Your task to perform on an android device: How much does a 2 bedroom apartment rent for in Philadelphia? Image 0: 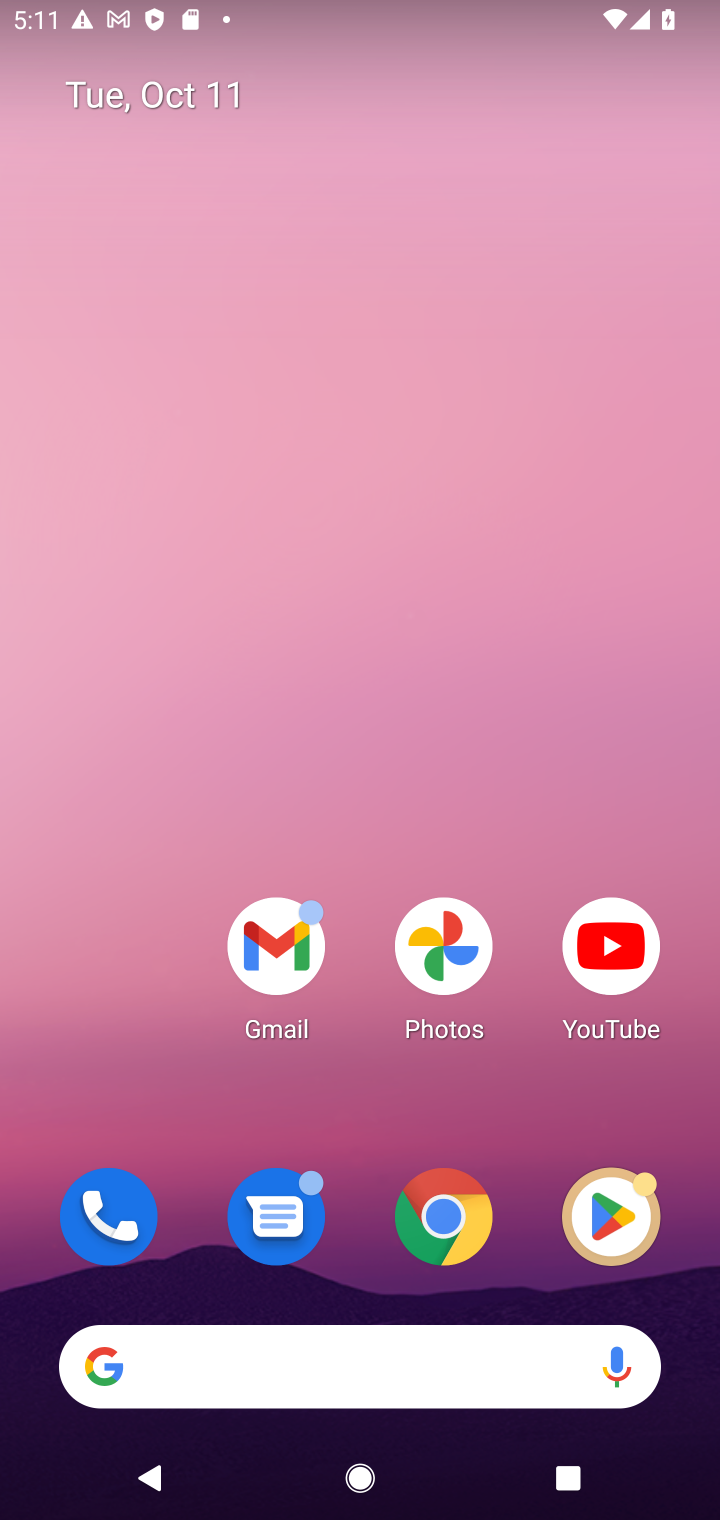
Step 0: click (439, 1222)
Your task to perform on an android device: How much does a 2 bedroom apartment rent for in Philadelphia? Image 1: 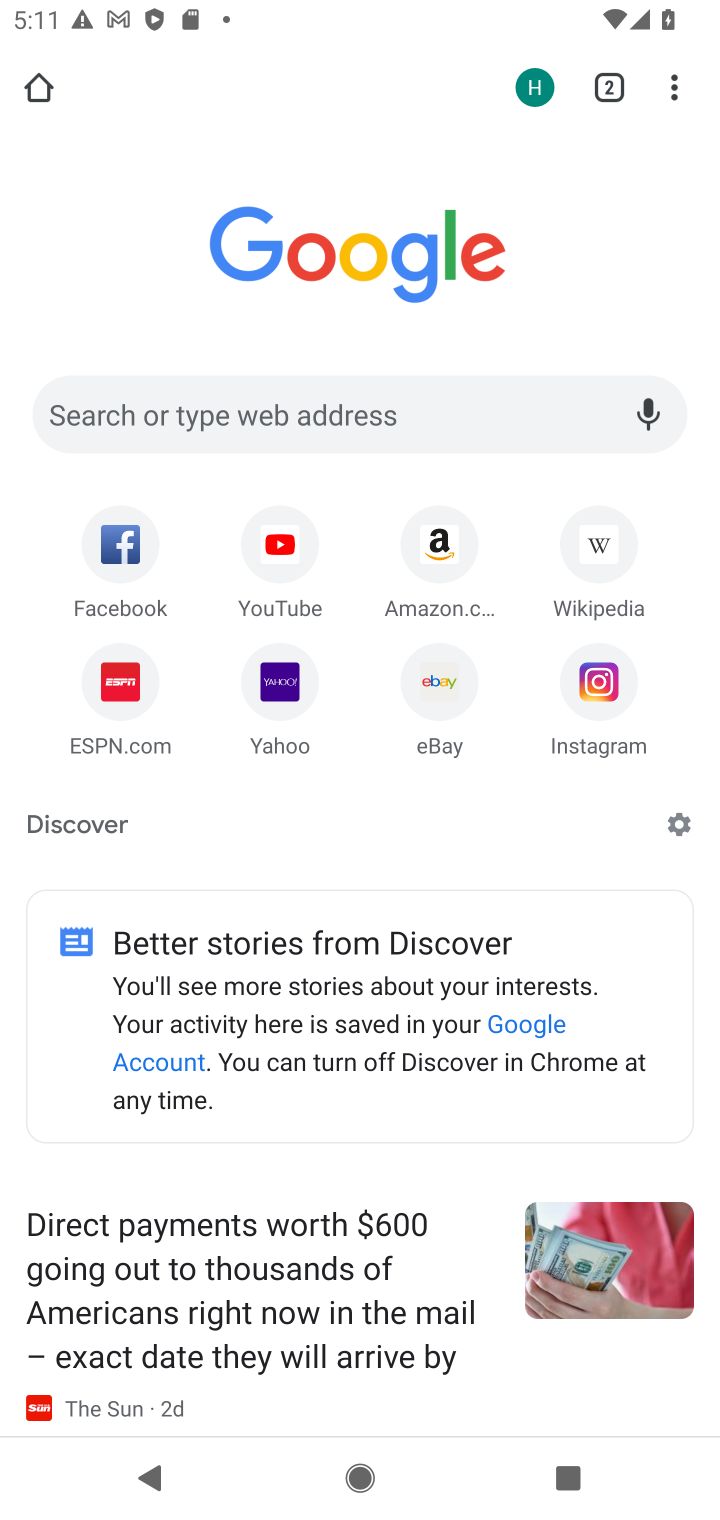
Step 1: click (303, 410)
Your task to perform on an android device: How much does a 2 bedroom apartment rent for in Philadelphia? Image 2: 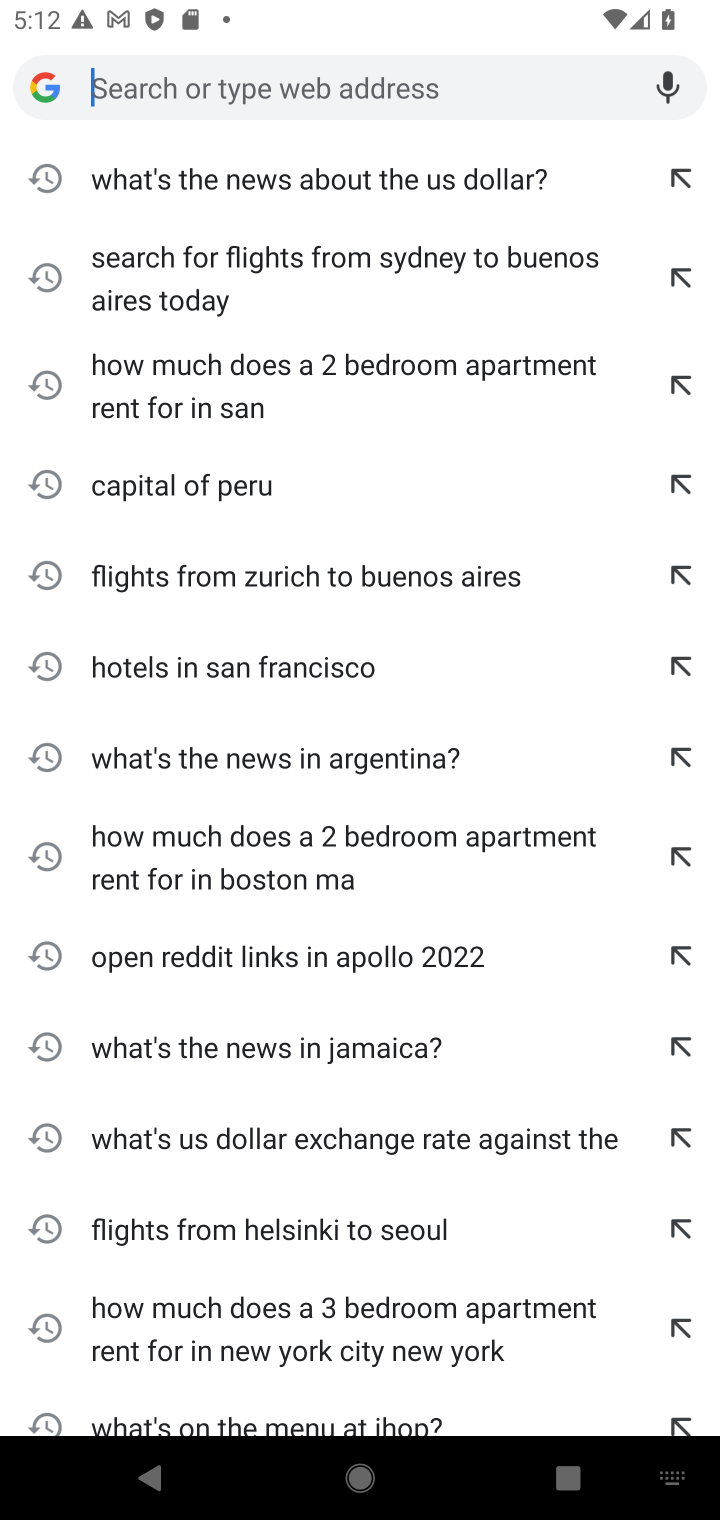
Step 2: type "How much does a 2 bedroom apartment rent for in Philadelphia?"
Your task to perform on an android device: How much does a 2 bedroom apartment rent for in Philadelphia? Image 3: 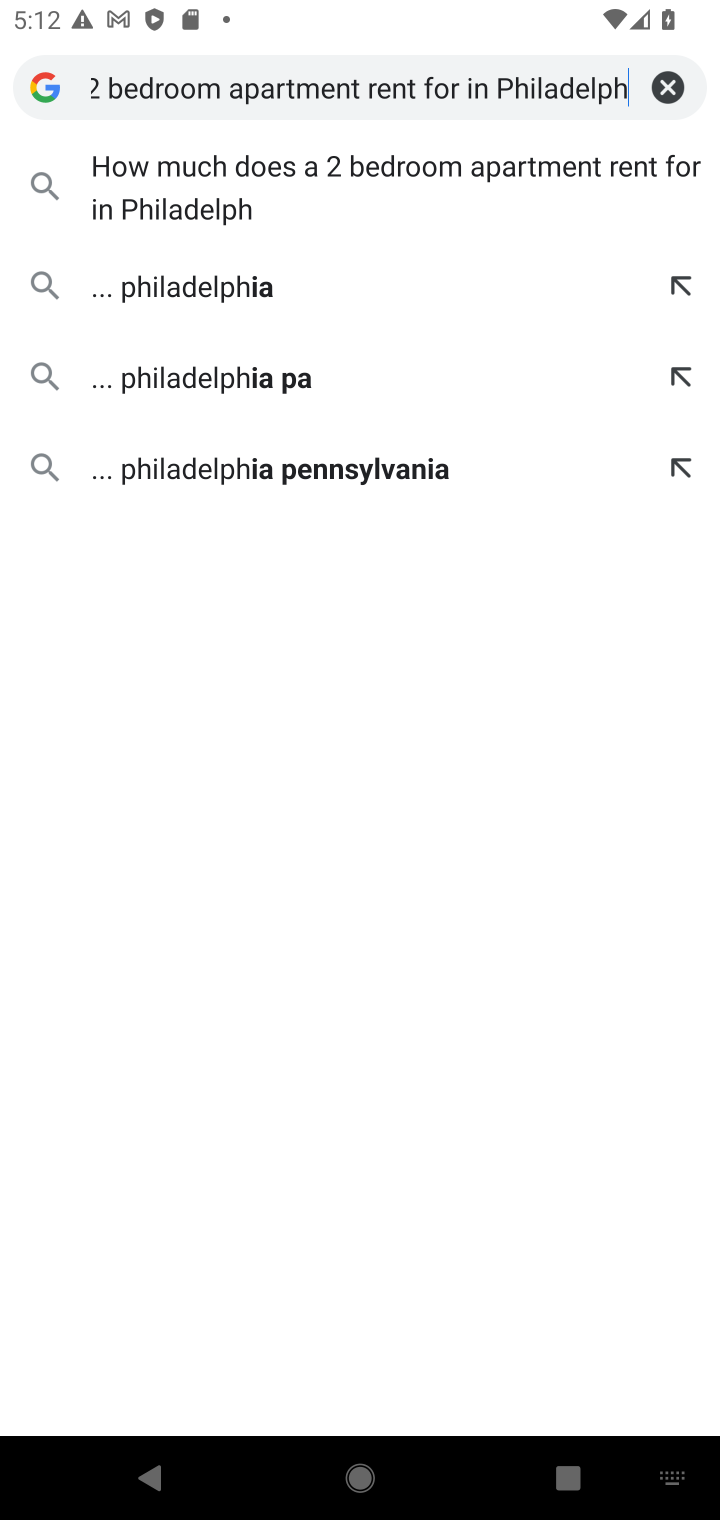
Step 3: click (198, 203)
Your task to perform on an android device: How much does a 2 bedroom apartment rent for in Philadelphia? Image 4: 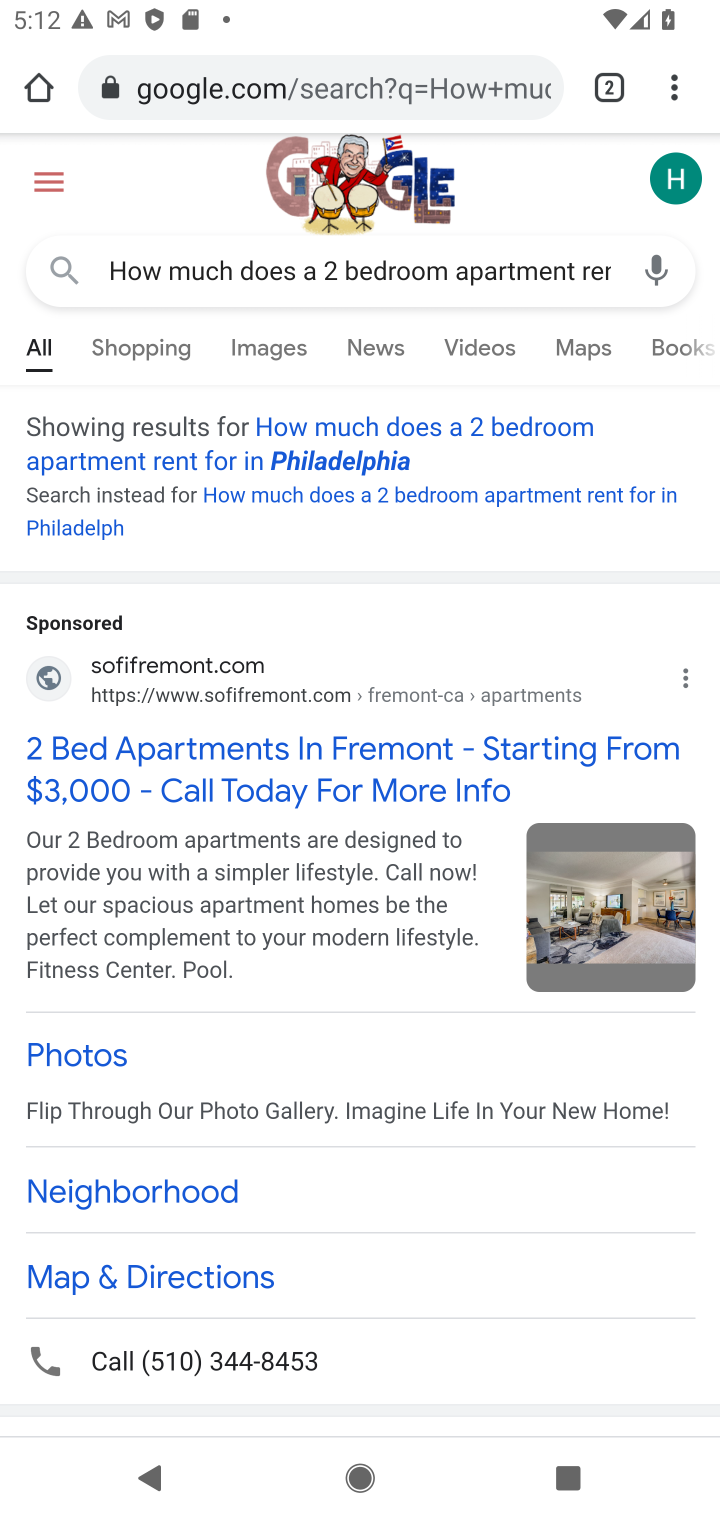
Step 4: drag from (328, 1164) to (403, 686)
Your task to perform on an android device: How much does a 2 bedroom apartment rent for in Philadelphia? Image 5: 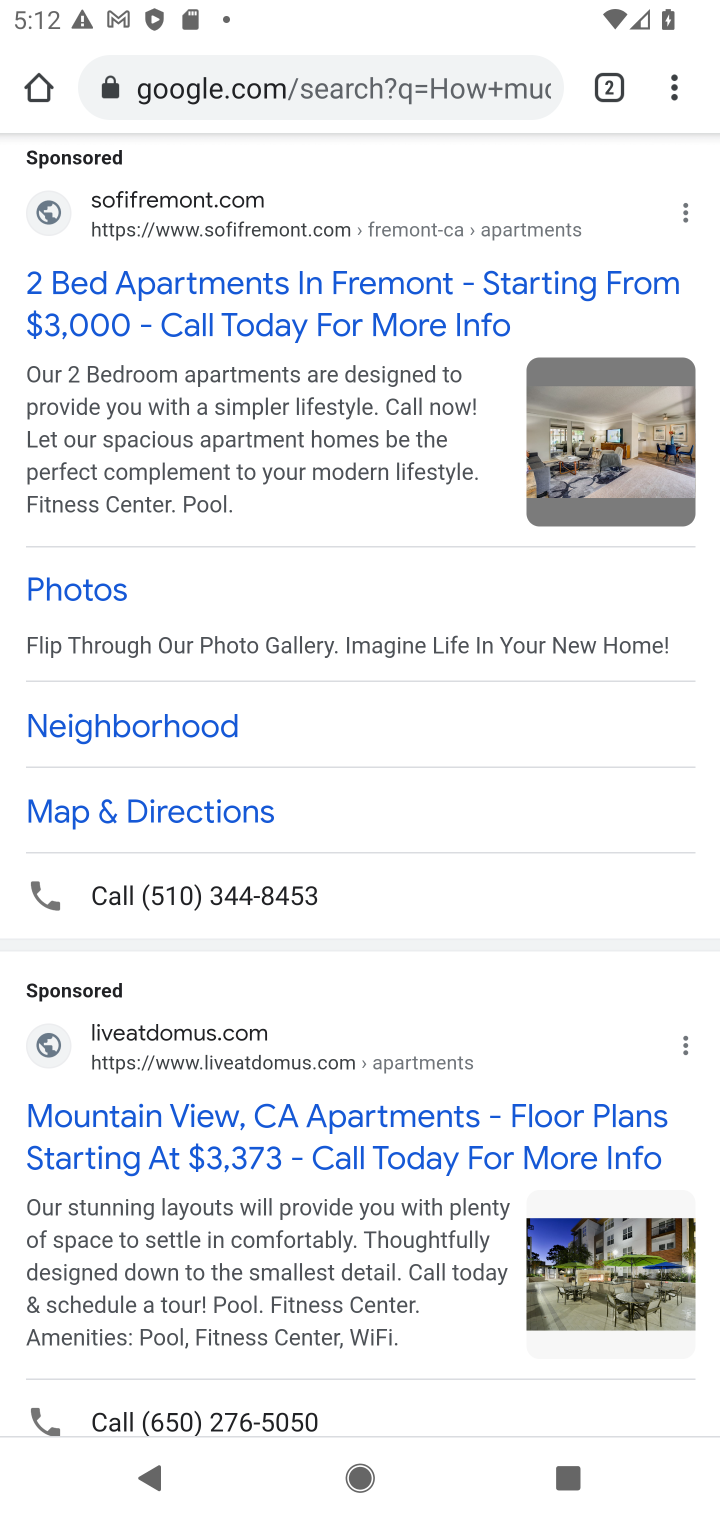
Step 5: drag from (295, 1214) to (394, 704)
Your task to perform on an android device: How much does a 2 bedroom apartment rent for in Philadelphia? Image 6: 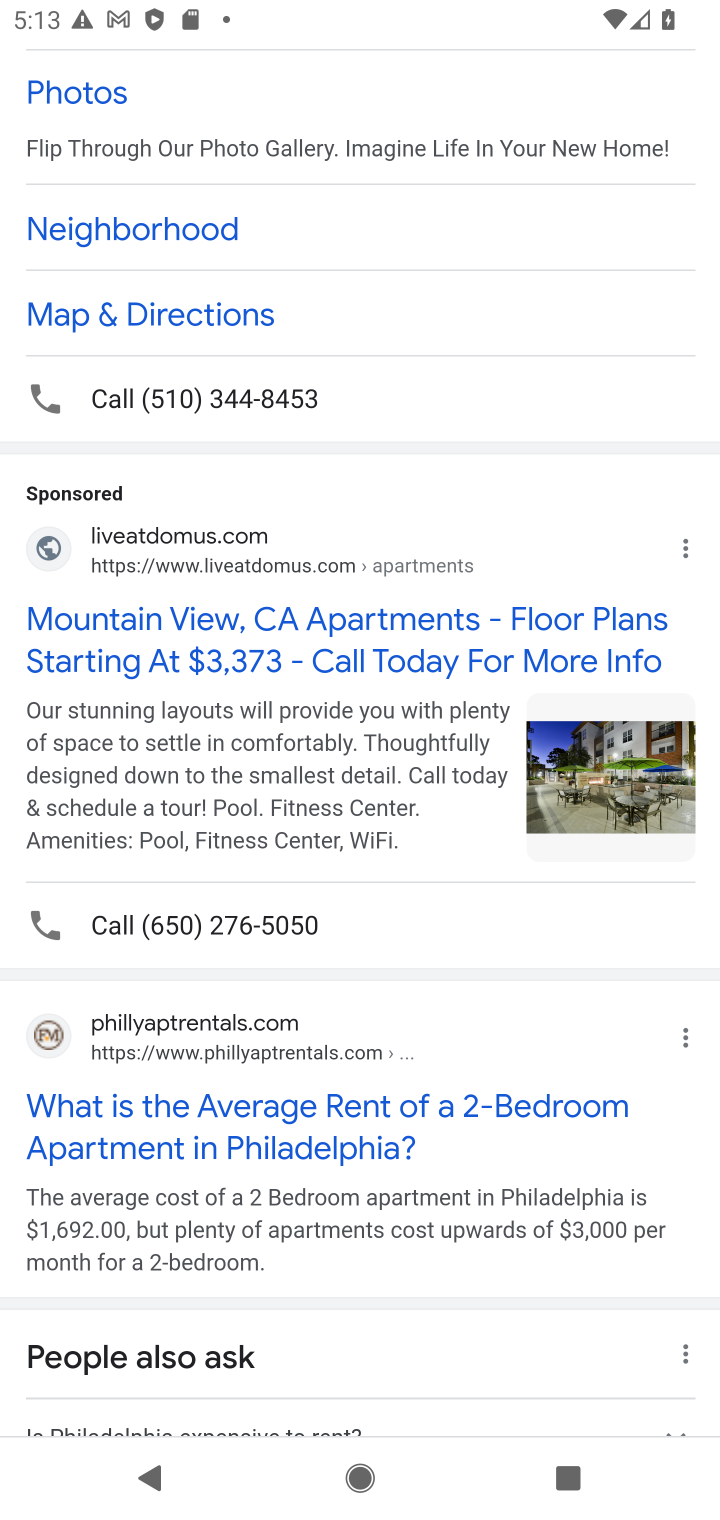
Step 6: drag from (225, 1142) to (347, 555)
Your task to perform on an android device: How much does a 2 bedroom apartment rent for in Philadelphia? Image 7: 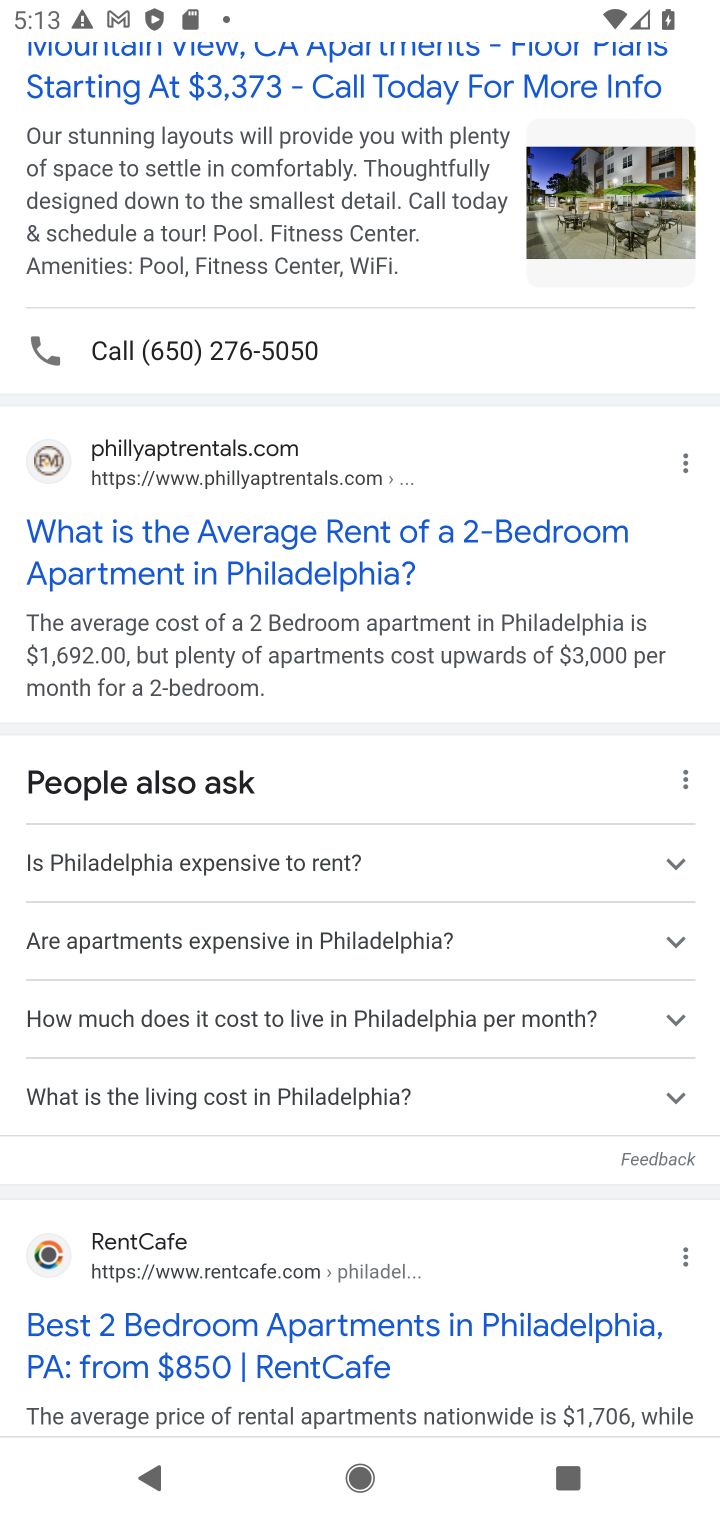
Step 7: click (182, 1272)
Your task to perform on an android device: How much does a 2 bedroom apartment rent for in Philadelphia? Image 8: 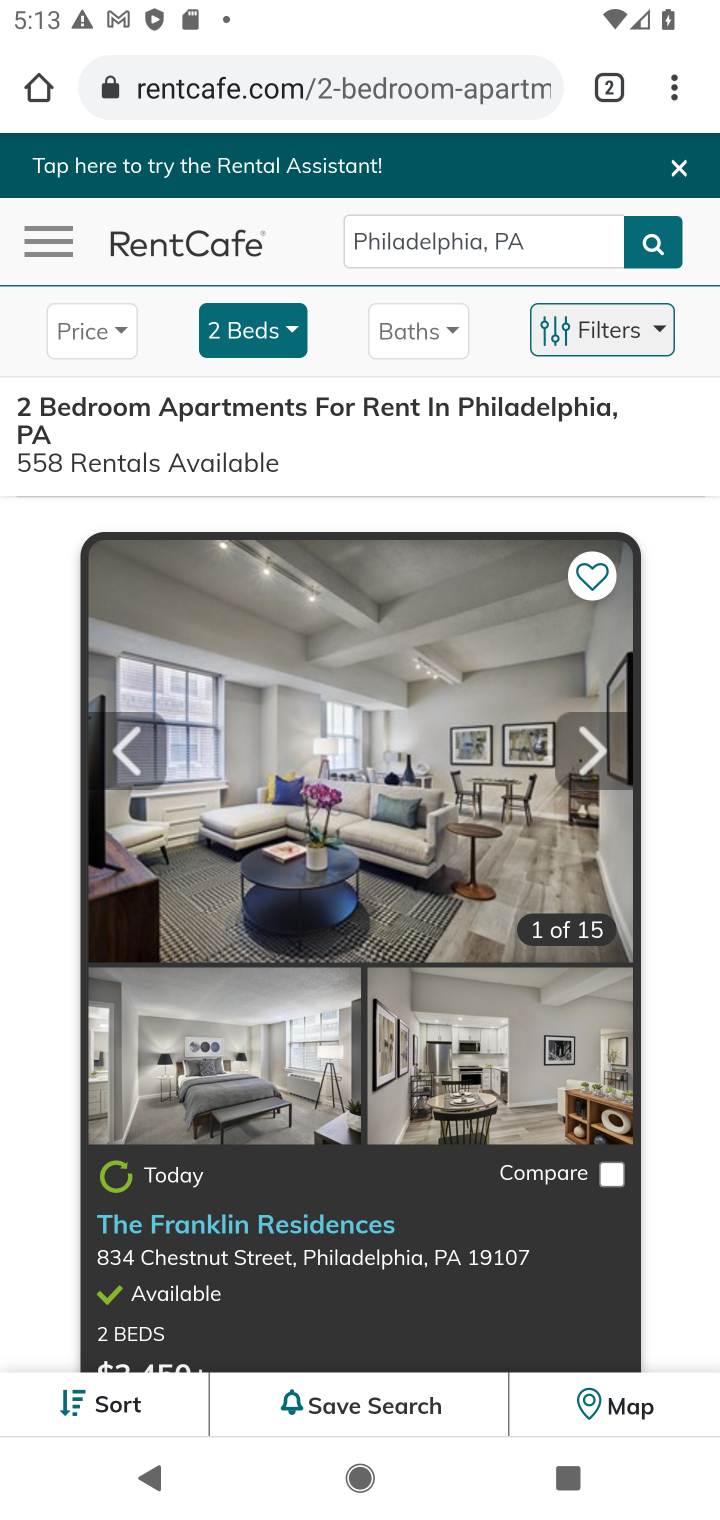
Step 8: task complete